Your task to perform on an android device: Open Chrome and go to the settings page Image 0: 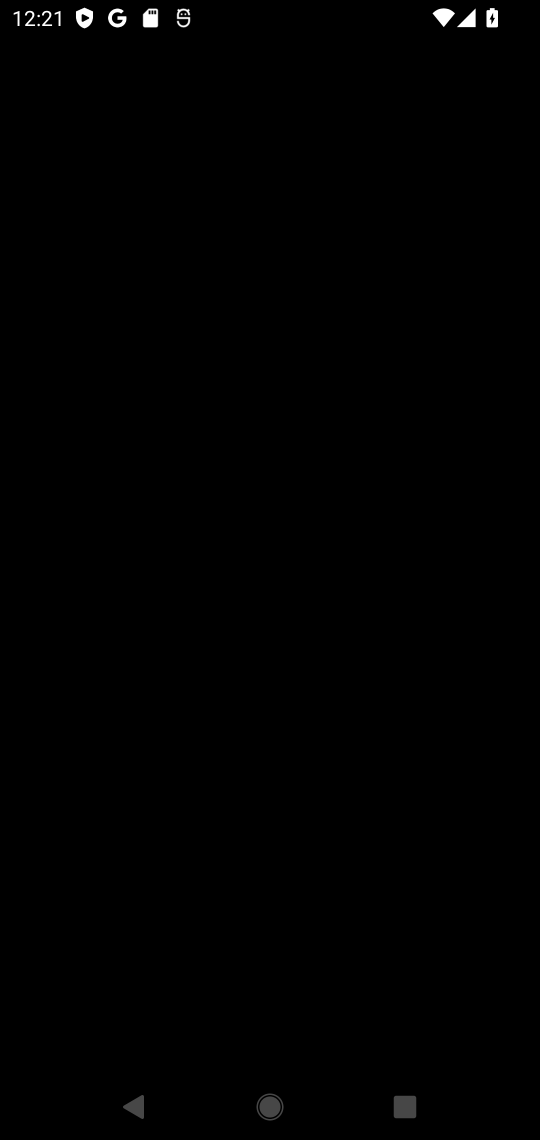
Step 0: press home button
Your task to perform on an android device: Open Chrome and go to the settings page Image 1: 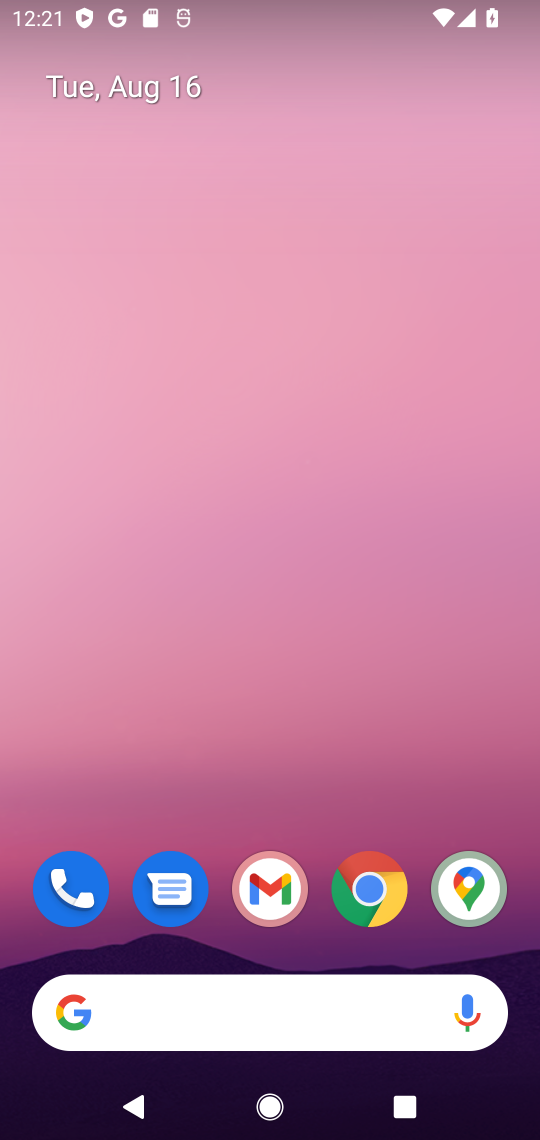
Step 1: drag from (47, 929) to (169, 10)
Your task to perform on an android device: Open Chrome and go to the settings page Image 2: 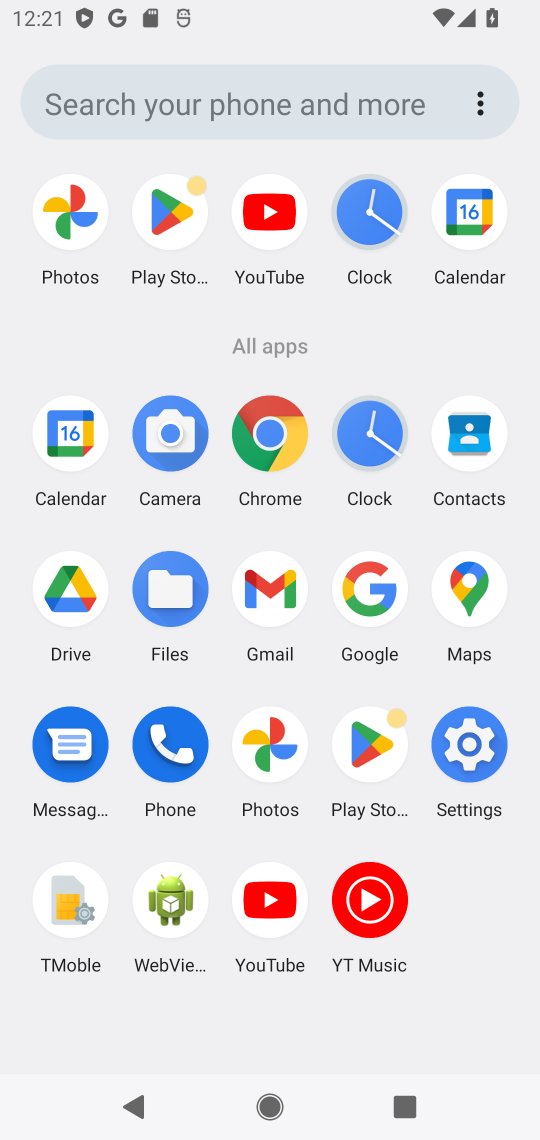
Step 2: click (262, 436)
Your task to perform on an android device: Open Chrome and go to the settings page Image 3: 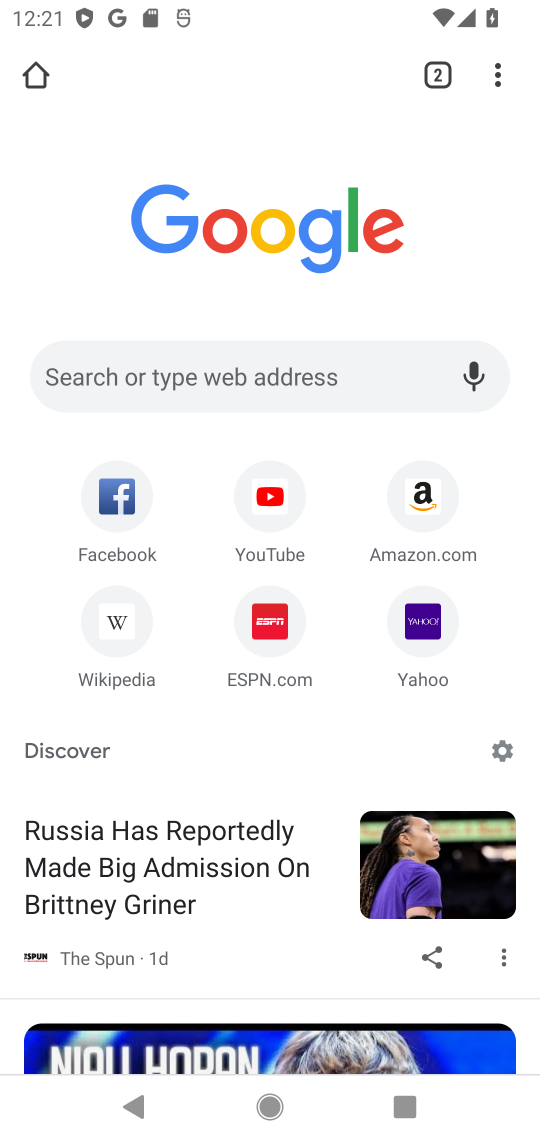
Step 3: task complete